Your task to perform on an android device: turn notification dots off Image 0: 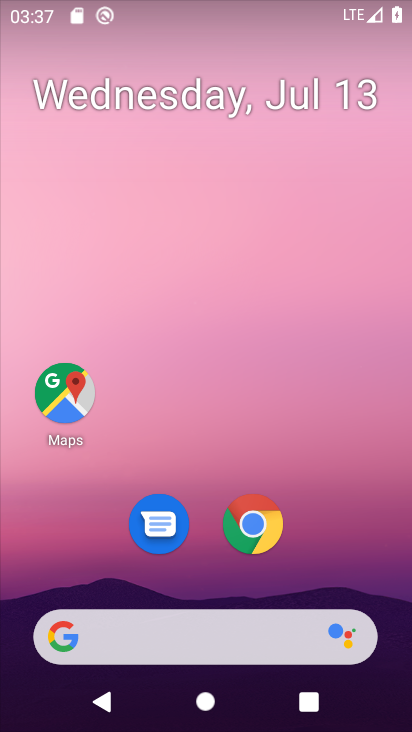
Step 0: drag from (323, 548) to (350, 21)
Your task to perform on an android device: turn notification dots off Image 1: 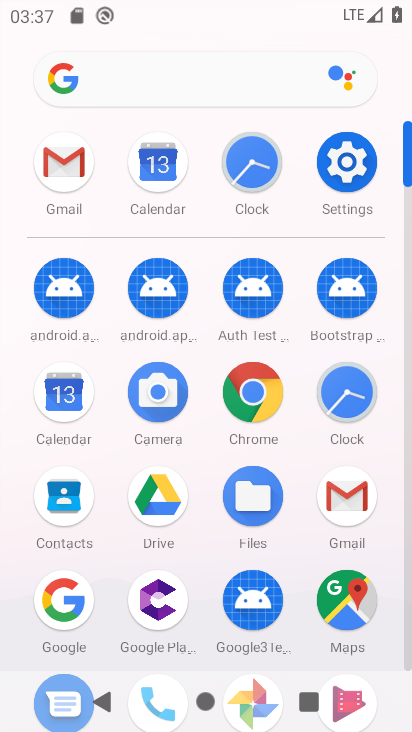
Step 1: click (358, 157)
Your task to perform on an android device: turn notification dots off Image 2: 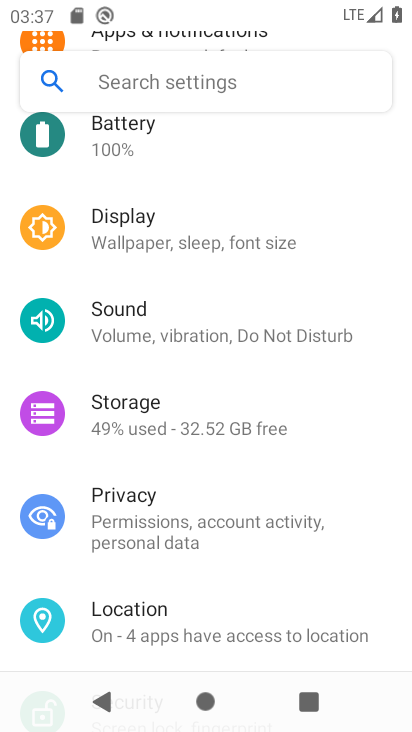
Step 2: drag from (281, 573) to (291, 322)
Your task to perform on an android device: turn notification dots off Image 3: 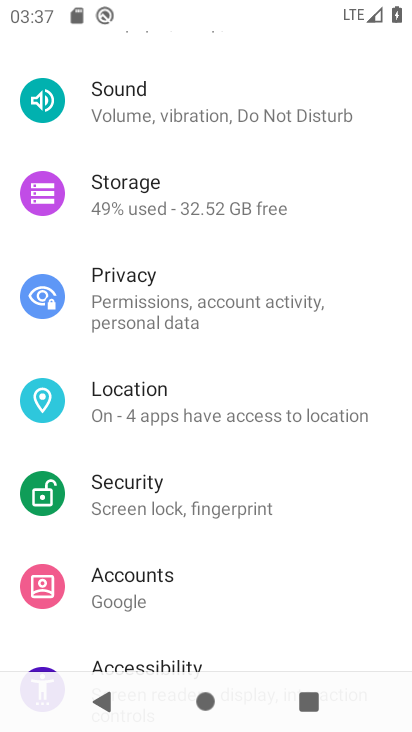
Step 3: drag from (268, 212) to (250, 604)
Your task to perform on an android device: turn notification dots off Image 4: 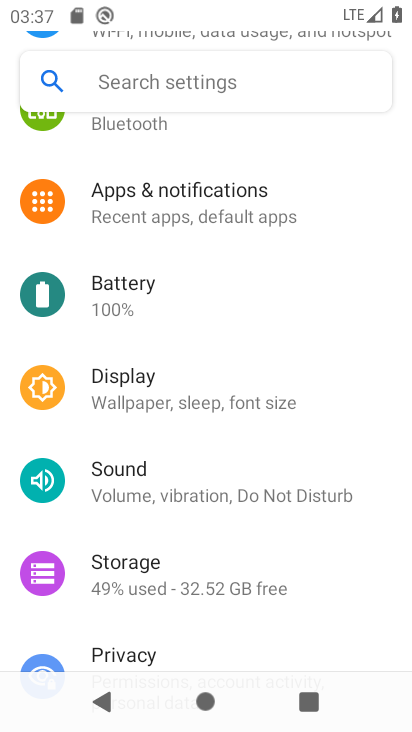
Step 4: click (251, 202)
Your task to perform on an android device: turn notification dots off Image 5: 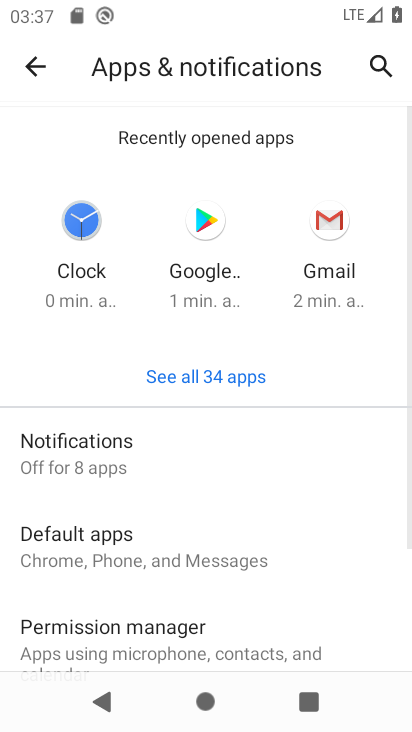
Step 5: click (108, 449)
Your task to perform on an android device: turn notification dots off Image 6: 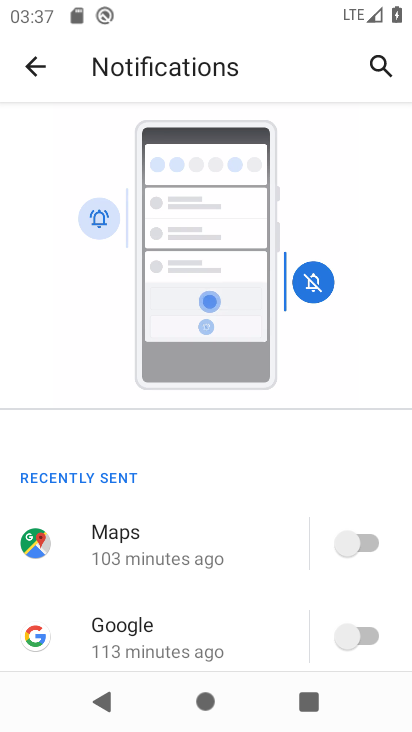
Step 6: drag from (193, 602) to (200, 183)
Your task to perform on an android device: turn notification dots off Image 7: 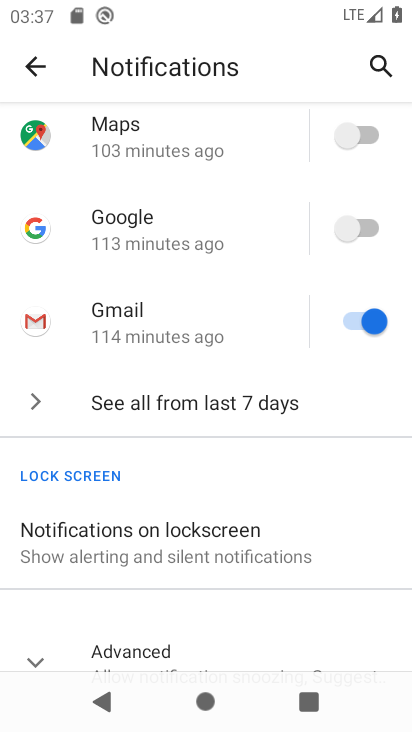
Step 7: drag from (179, 461) to (210, 192)
Your task to perform on an android device: turn notification dots off Image 8: 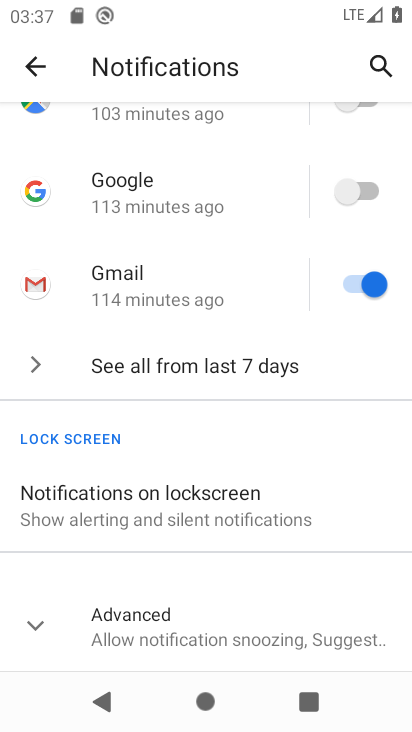
Step 8: click (34, 621)
Your task to perform on an android device: turn notification dots off Image 9: 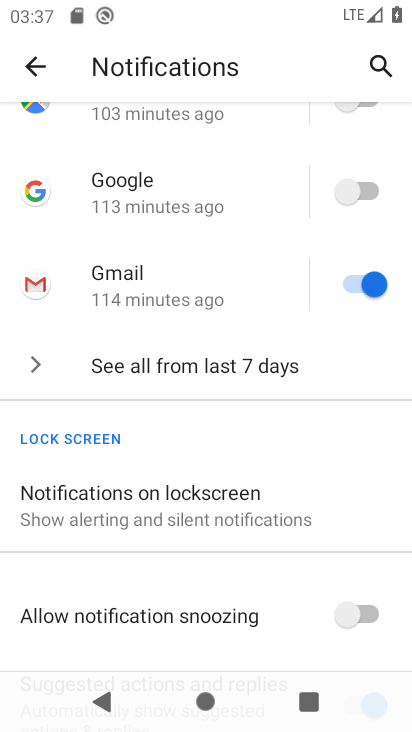
Step 9: task complete